Your task to perform on an android device: What's on my calendar tomorrow? Image 0: 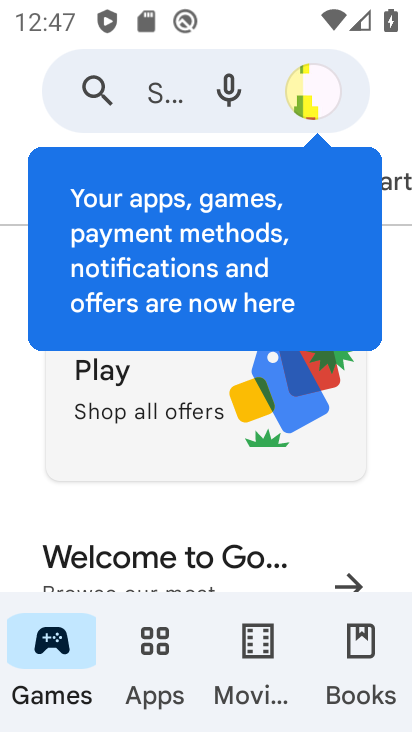
Step 0: press home button
Your task to perform on an android device: What's on my calendar tomorrow? Image 1: 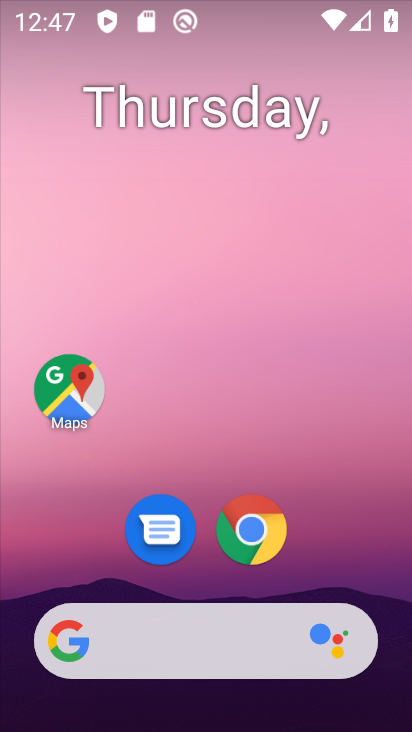
Step 1: drag from (335, 554) to (356, 197)
Your task to perform on an android device: What's on my calendar tomorrow? Image 2: 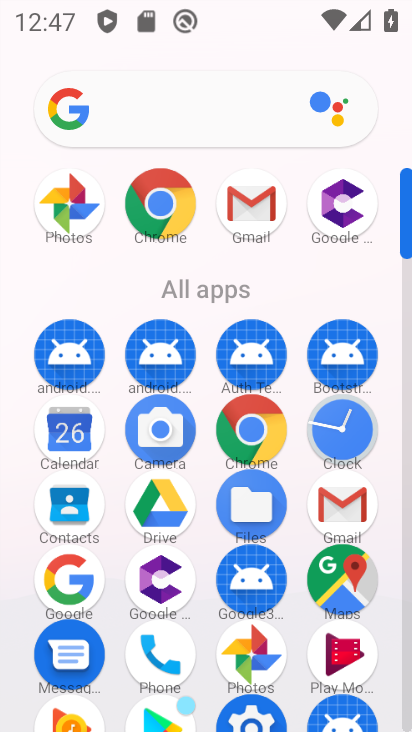
Step 2: click (73, 440)
Your task to perform on an android device: What's on my calendar tomorrow? Image 3: 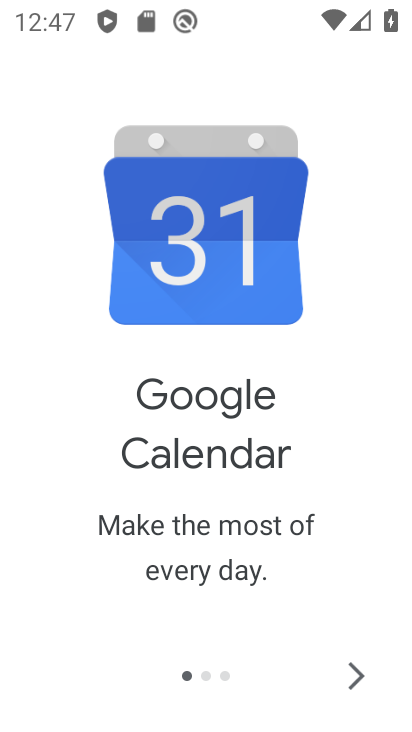
Step 3: click (340, 683)
Your task to perform on an android device: What's on my calendar tomorrow? Image 4: 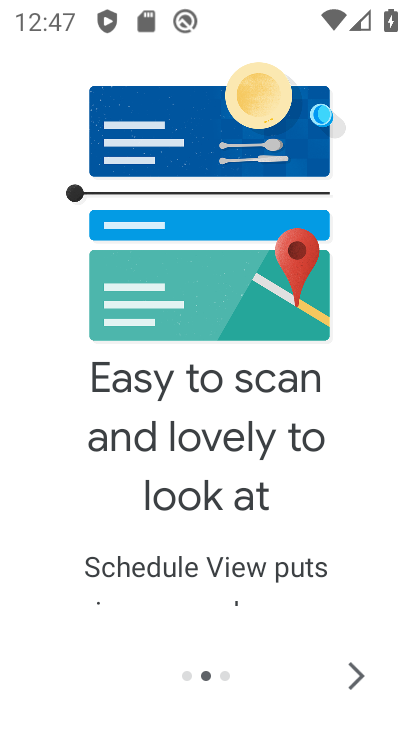
Step 4: click (343, 679)
Your task to perform on an android device: What's on my calendar tomorrow? Image 5: 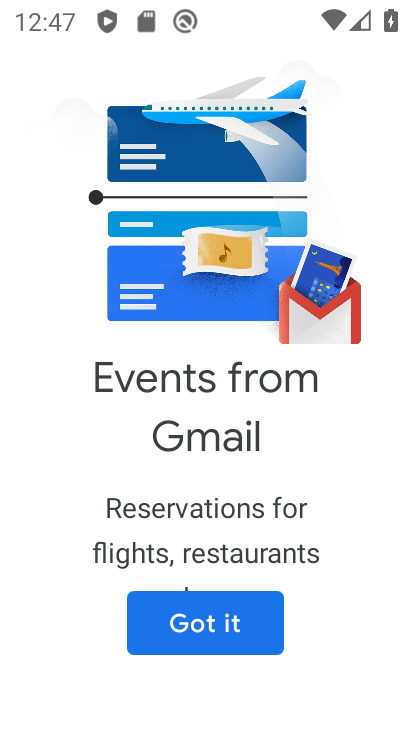
Step 5: click (242, 625)
Your task to perform on an android device: What's on my calendar tomorrow? Image 6: 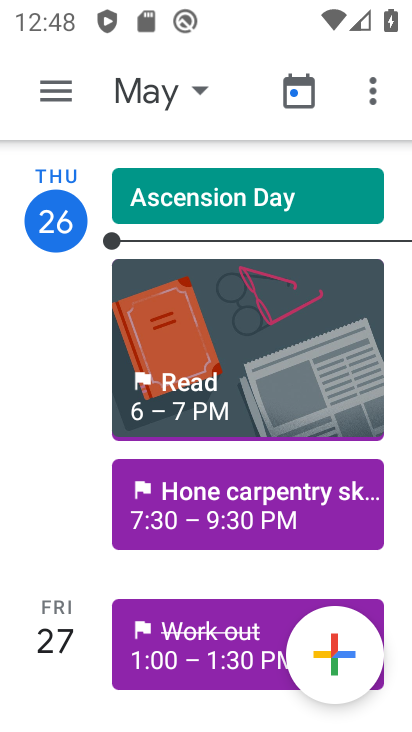
Step 6: task complete